Your task to perform on an android device: open a new tab in the chrome app Image 0: 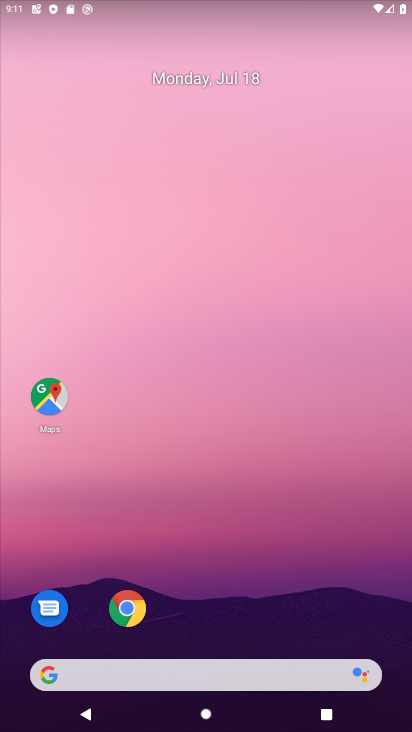
Step 0: click (122, 601)
Your task to perform on an android device: open a new tab in the chrome app Image 1: 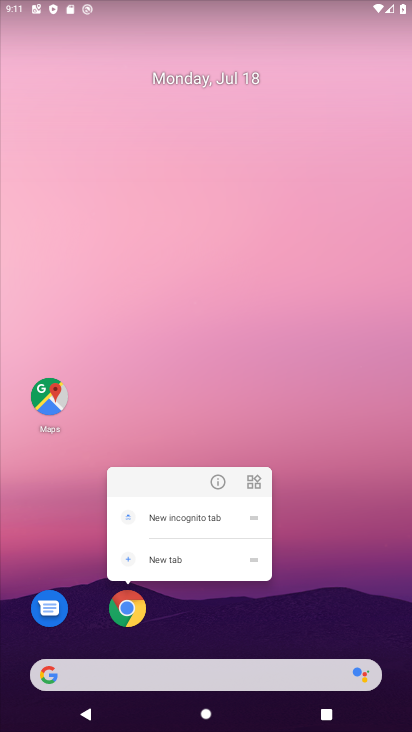
Step 1: click (122, 601)
Your task to perform on an android device: open a new tab in the chrome app Image 2: 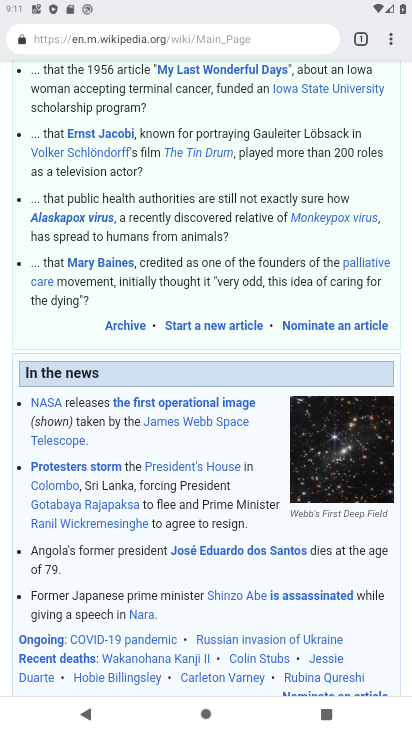
Step 2: click (356, 32)
Your task to perform on an android device: open a new tab in the chrome app Image 3: 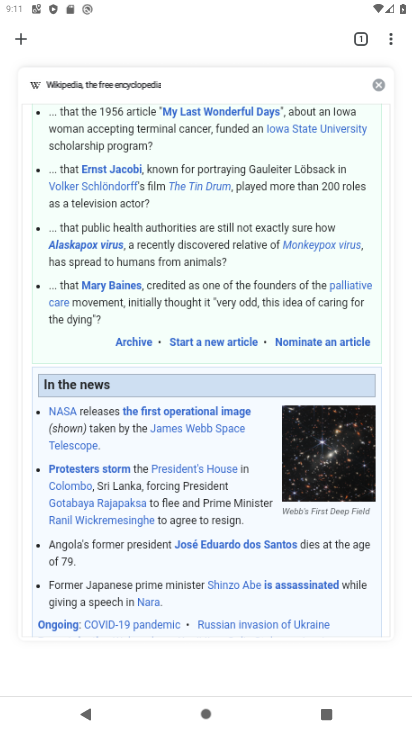
Step 3: click (23, 38)
Your task to perform on an android device: open a new tab in the chrome app Image 4: 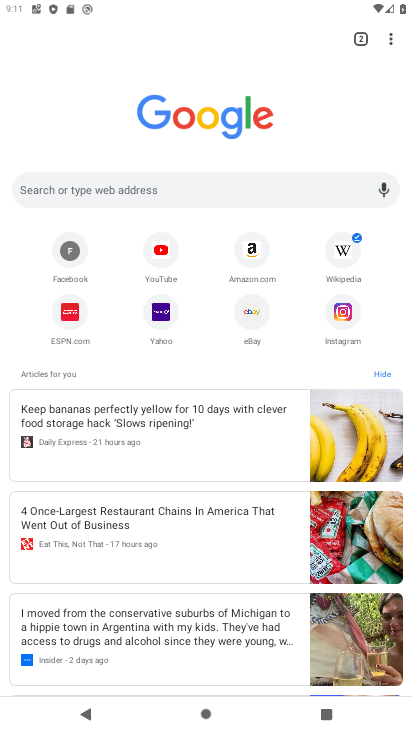
Step 4: task complete